Your task to perform on an android device: Set the phone to "Do not disturb". Image 0: 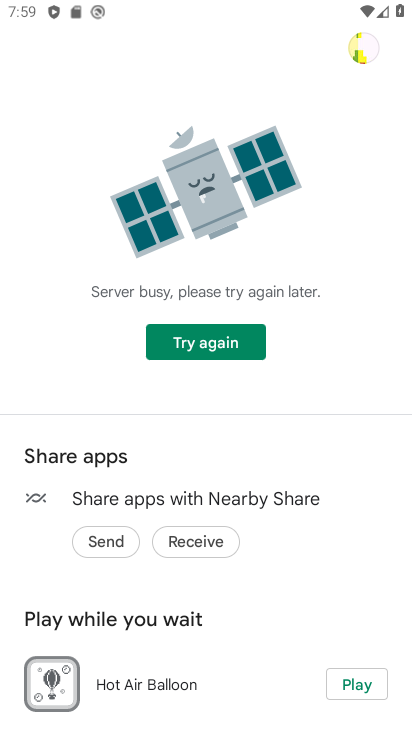
Step 0: press home button
Your task to perform on an android device: Set the phone to "Do not disturb". Image 1: 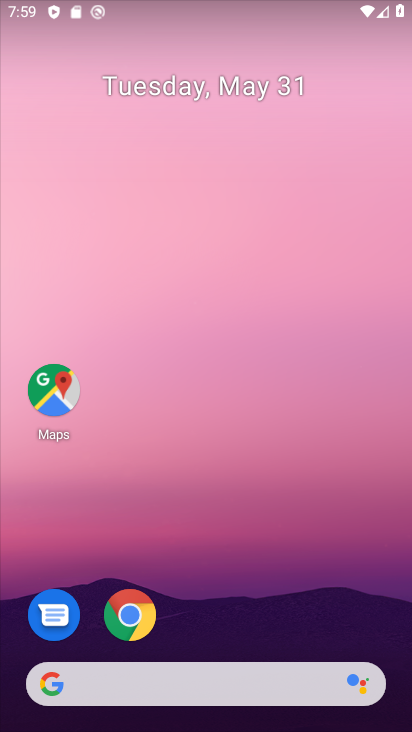
Step 1: drag from (210, 543) to (201, 0)
Your task to perform on an android device: Set the phone to "Do not disturb". Image 2: 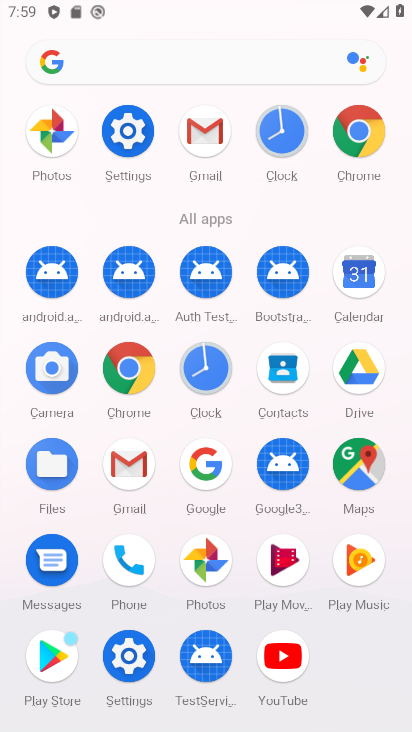
Step 2: click (121, 663)
Your task to perform on an android device: Set the phone to "Do not disturb". Image 3: 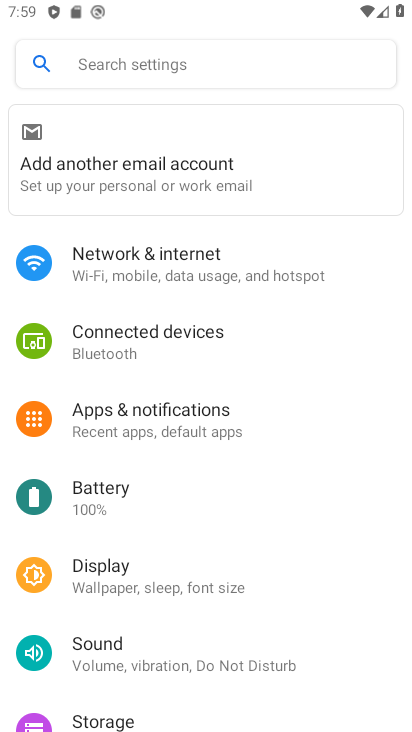
Step 3: click (179, 653)
Your task to perform on an android device: Set the phone to "Do not disturb". Image 4: 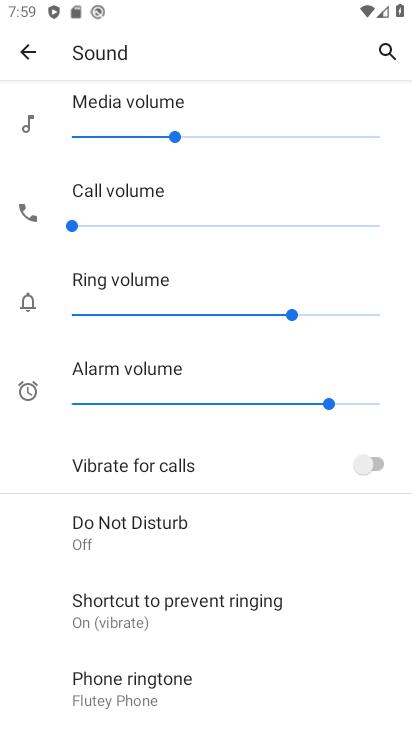
Step 4: click (133, 527)
Your task to perform on an android device: Set the phone to "Do not disturb". Image 5: 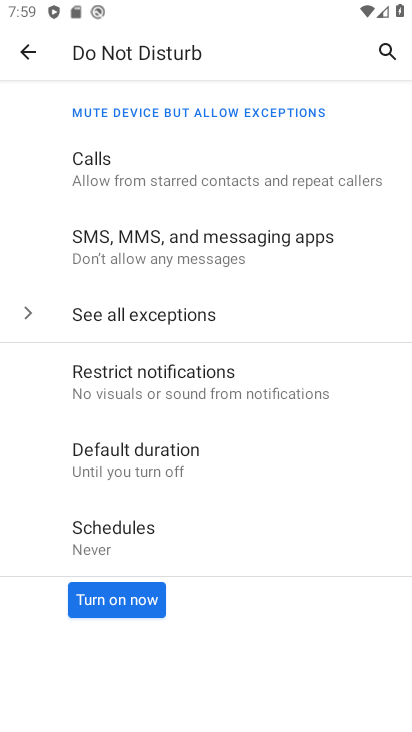
Step 5: click (135, 606)
Your task to perform on an android device: Set the phone to "Do not disturb". Image 6: 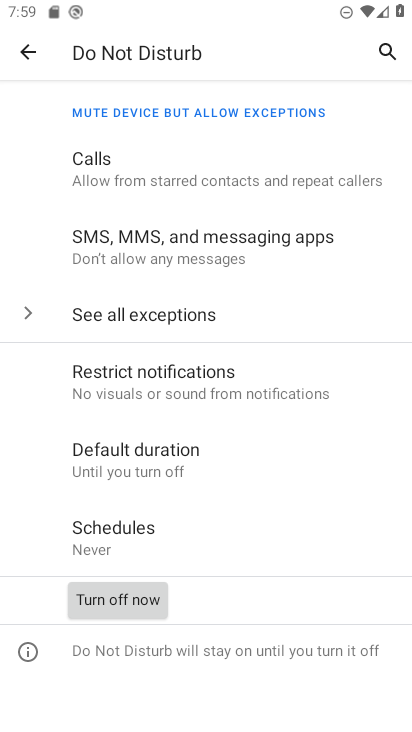
Step 6: task complete